Your task to perform on an android device: change your default location settings in chrome Image 0: 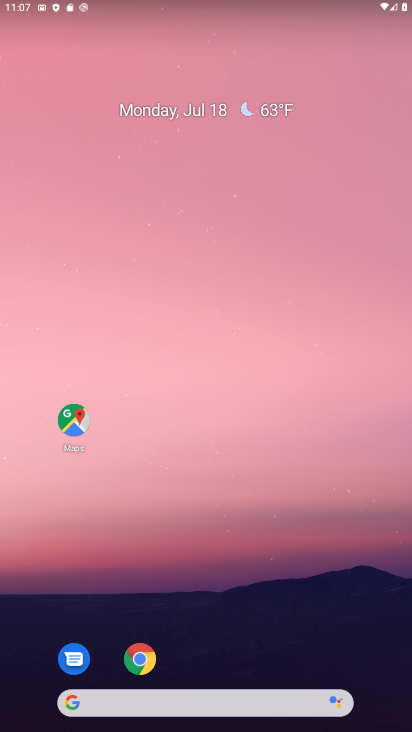
Step 0: drag from (214, 665) to (181, 83)
Your task to perform on an android device: change your default location settings in chrome Image 1: 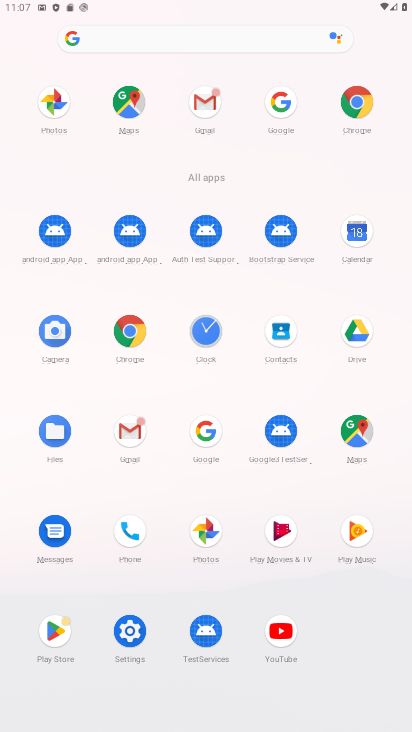
Step 1: click (133, 323)
Your task to perform on an android device: change your default location settings in chrome Image 2: 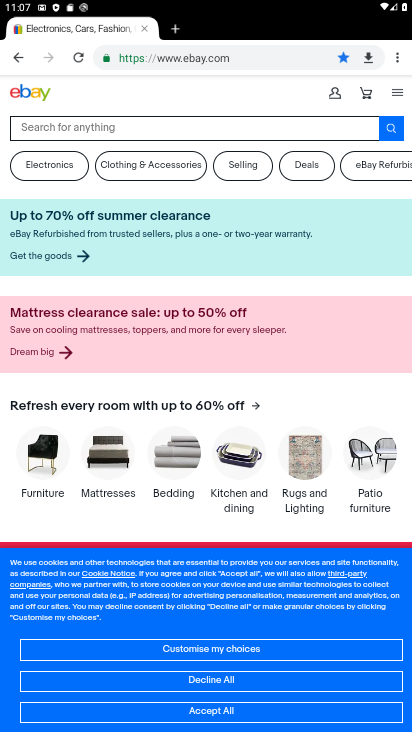
Step 2: drag from (399, 59) to (288, 423)
Your task to perform on an android device: change your default location settings in chrome Image 3: 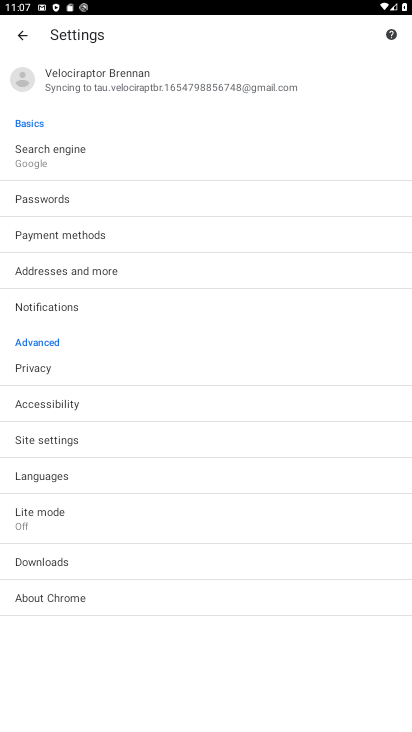
Step 3: click (75, 438)
Your task to perform on an android device: change your default location settings in chrome Image 4: 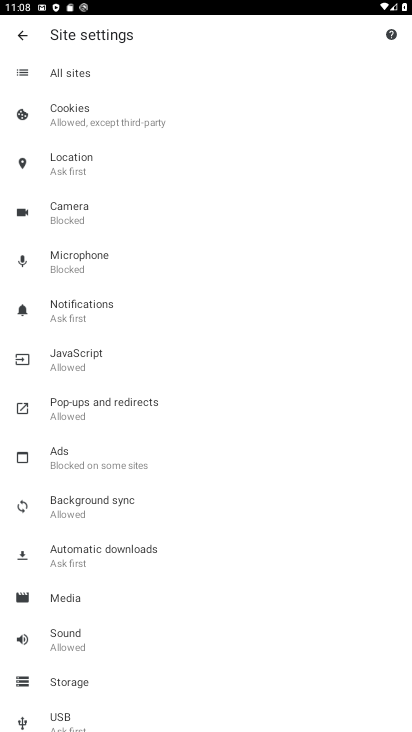
Step 4: click (93, 156)
Your task to perform on an android device: change your default location settings in chrome Image 5: 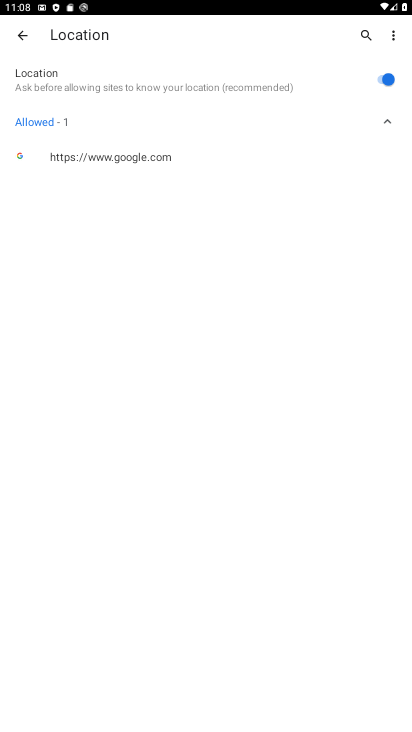
Step 5: click (380, 71)
Your task to perform on an android device: change your default location settings in chrome Image 6: 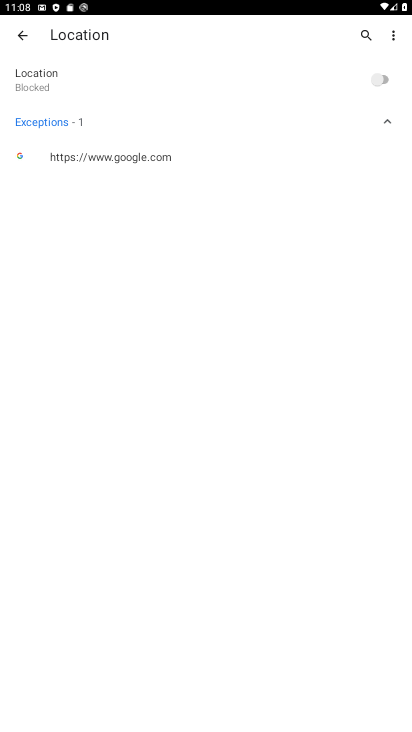
Step 6: task complete